Your task to perform on an android device: What's on my calendar today? Image 0: 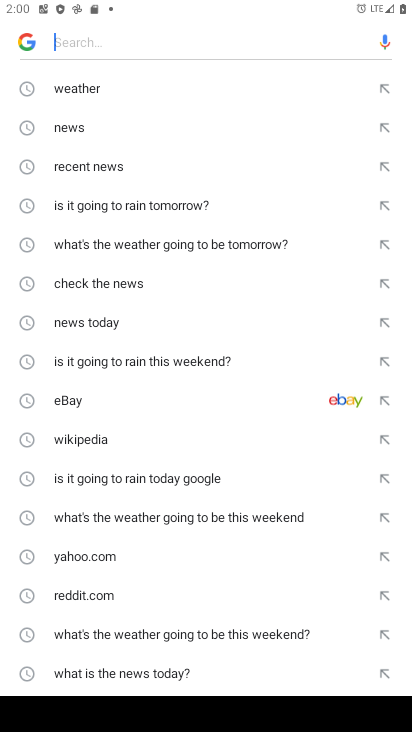
Step 0: press home button
Your task to perform on an android device: What's on my calendar today? Image 1: 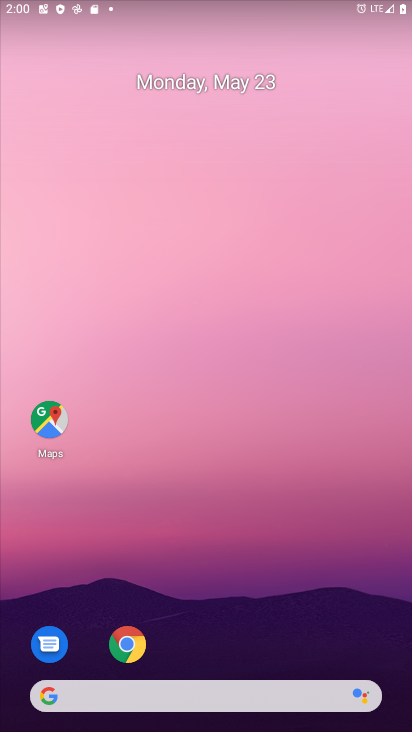
Step 1: drag from (273, 645) to (261, 44)
Your task to perform on an android device: What's on my calendar today? Image 2: 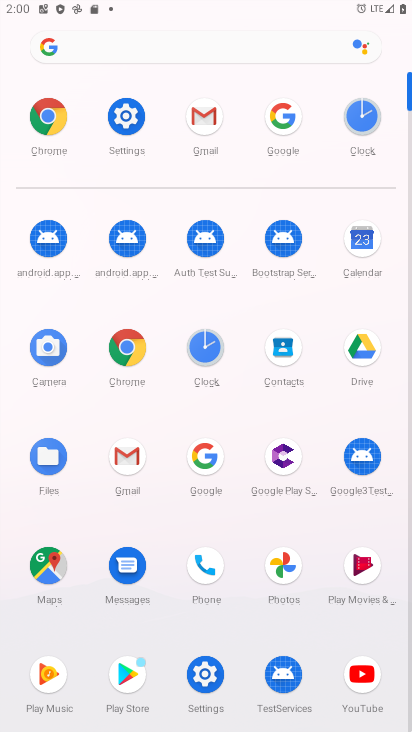
Step 2: click (358, 240)
Your task to perform on an android device: What's on my calendar today? Image 3: 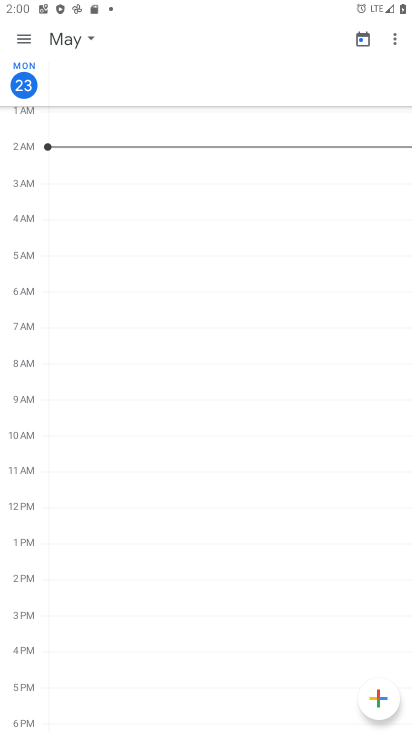
Step 3: click (79, 31)
Your task to perform on an android device: What's on my calendar today? Image 4: 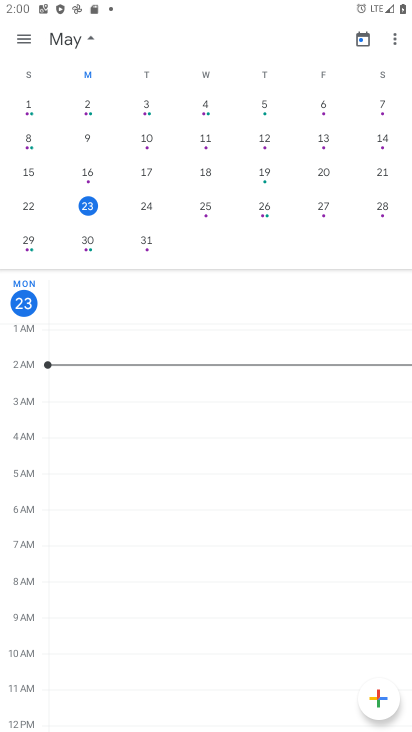
Step 4: click (93, 200)
Your task to perform on an android device: What's on my calendar today? Image 5: 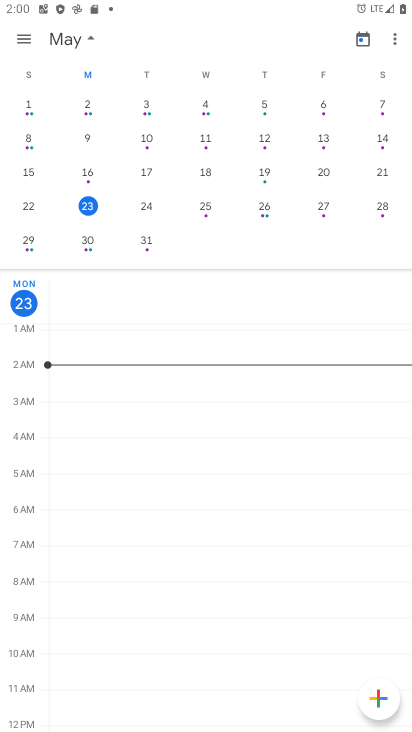
Step 5: task complete